Your task to perform on an android device: What's the weather going to be tomorrow? Image 0: 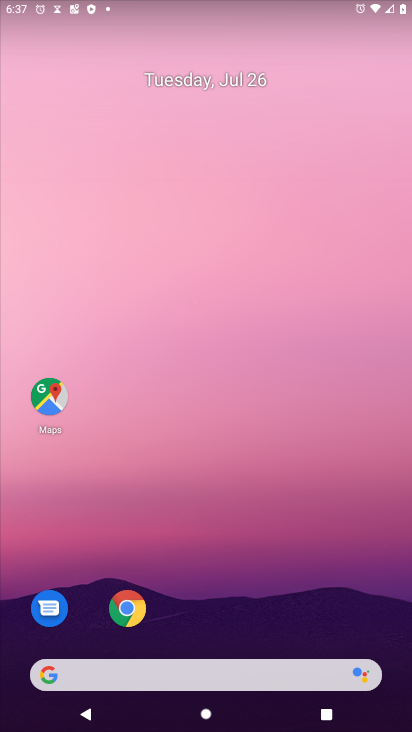
Step 0: press home button
Your task to perform on an android device: What's the weather going to be tomorrow? Image 1: 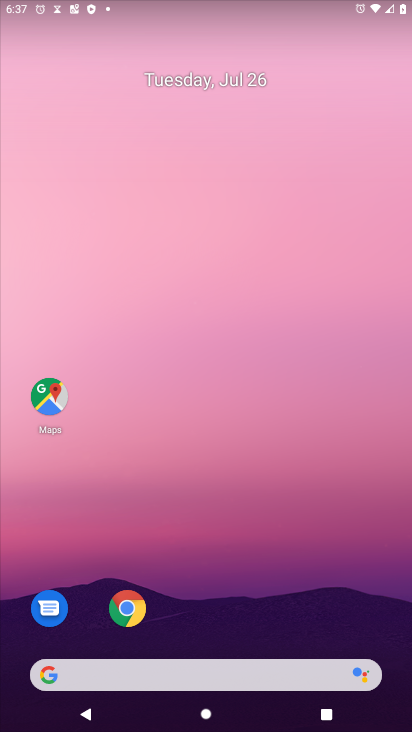
Step 1: click (31, 673)
Your task to perform on an android device: What's the weather going to be tomorrow? Image 2: 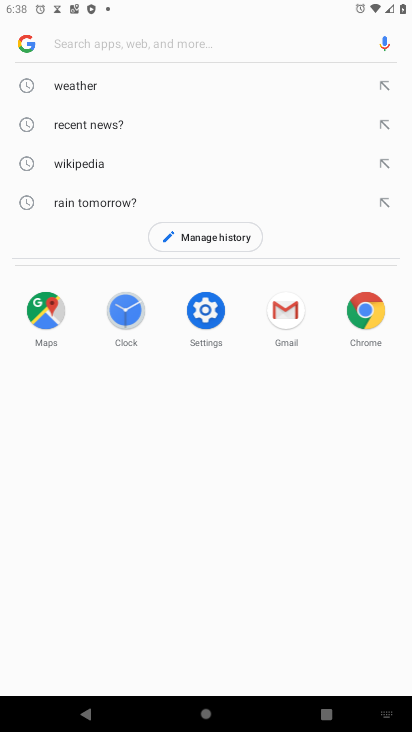
Step 2: type "weather going to be tomorrow?"
Your task to perform on an android device: What's the weather going to be tomorrow? Image 3: 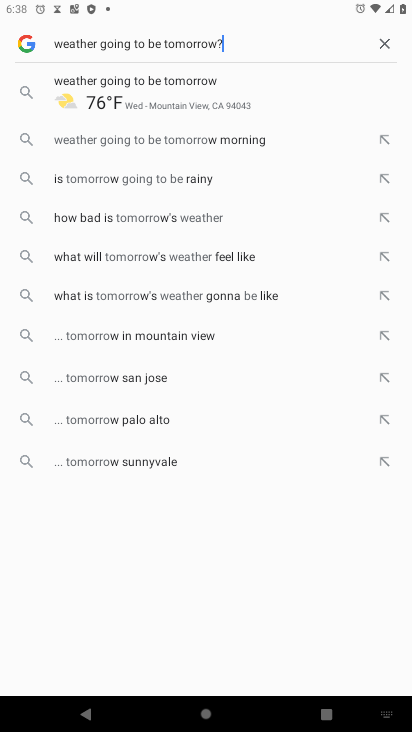
Step 3: press enter
Your task to perform on an android device: What's the weather going to be tomorrow? Image 4: 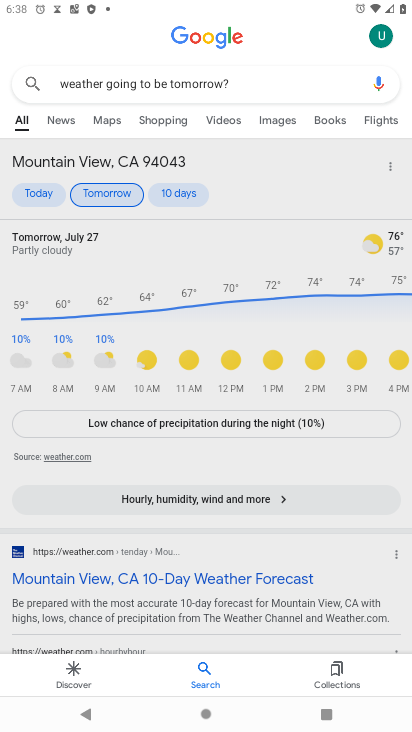
Step 4: task complete